Your task to perform on an android device: set the stopwatch Image 0: 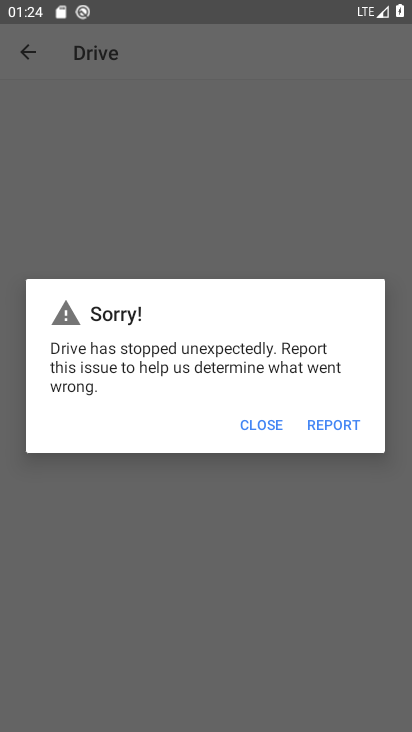
Step 0: press home button
Your task to perform on an android device: set the stopwatch Image 1: 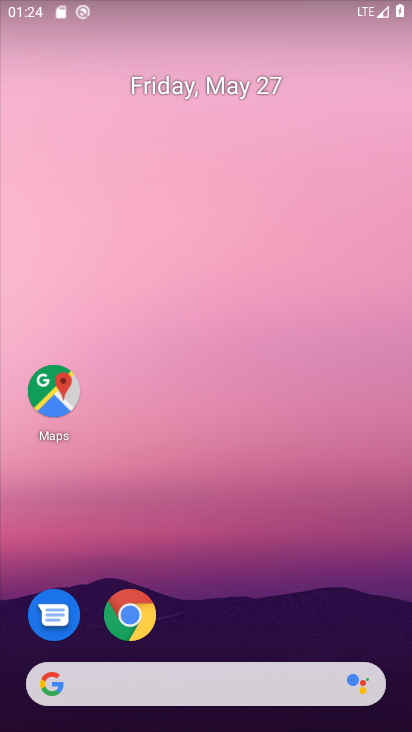
Step 1: drag from (375, 613) to (374, 118)
Your task to perform on an android device: set the stopwatch Image 2: 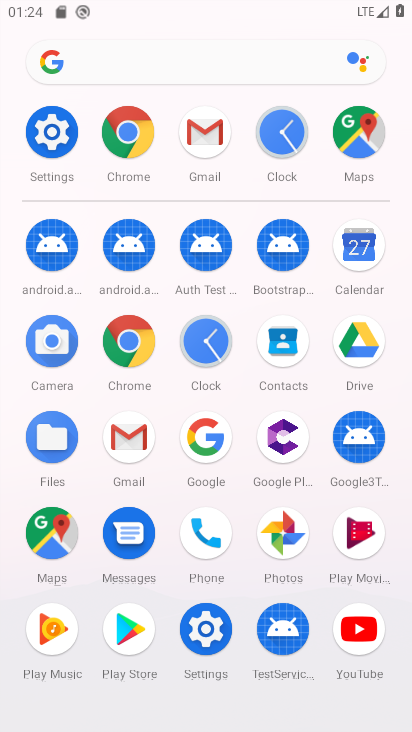
Step 2: click (203, 354)
Your task to perform on an android device: set the stopwatch Image 3: 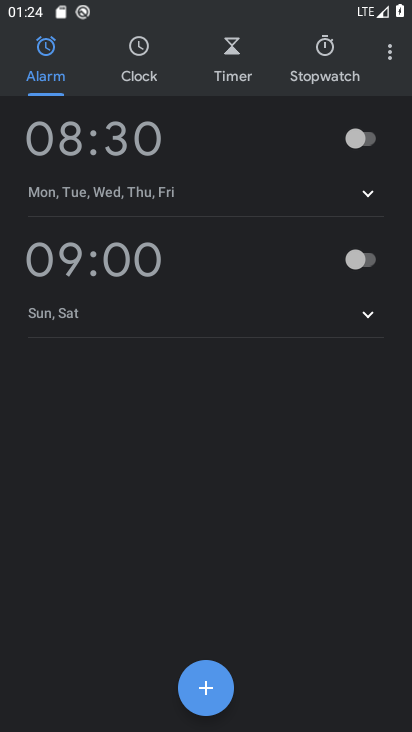
Step 3: click (326, 68)
Your task to perform on an android device: set the stopwatch Image 4: 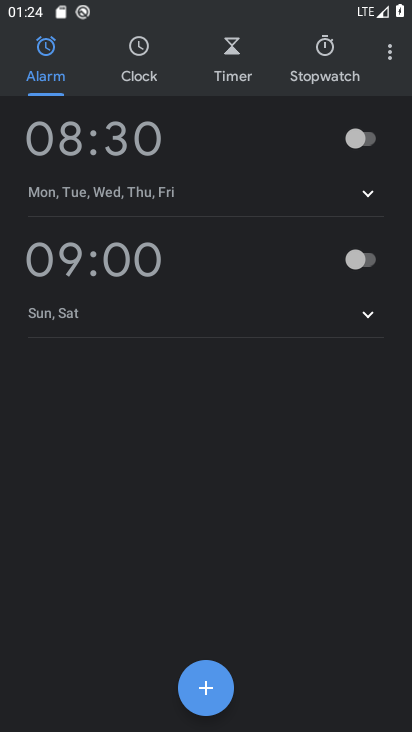
Step 4: click (340, 68)
Your task to perform on an android device: set the stopwatch Image 5: 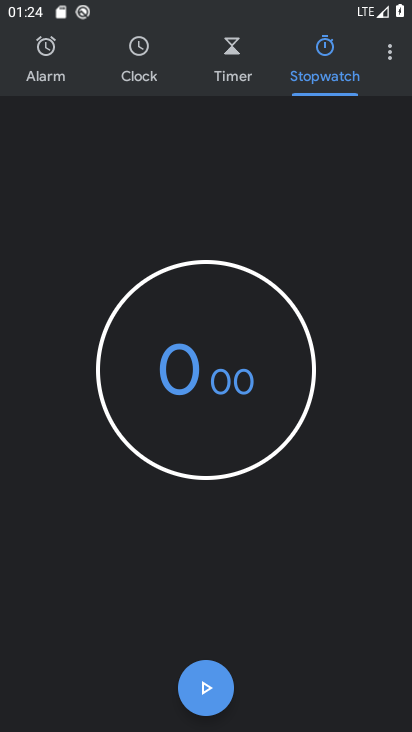
Step 5: task complete